Your task to perform on an android device: toggle data saver in the chrome app Image 0: 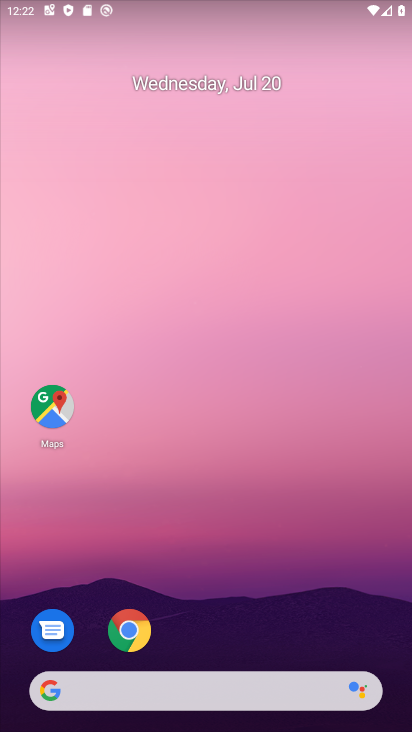
Step 0: press home button
Your task to perform on an android device: toggle data saver in the chrome app Image 1: 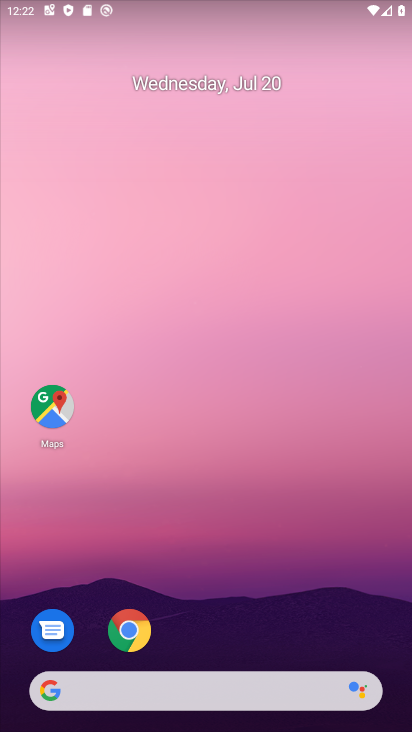
Step 1: click (132, 639)
Your task to perform on an android device: toggle data saver in the chrome app Image 2: 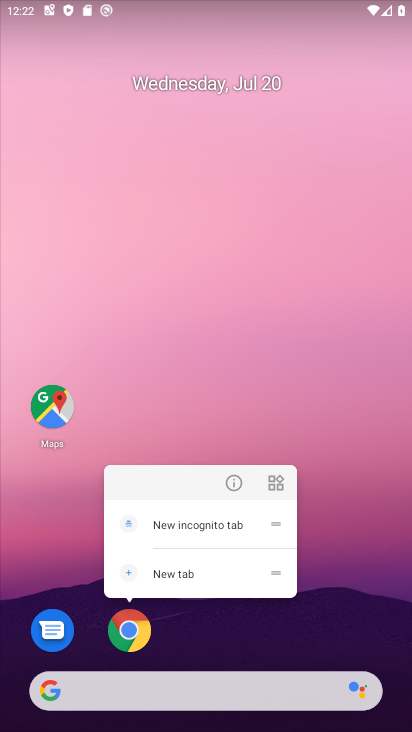
Step 2: click (135, 642)
Your task to perform on an android device: toggle data saver in the chrome app Image 3: 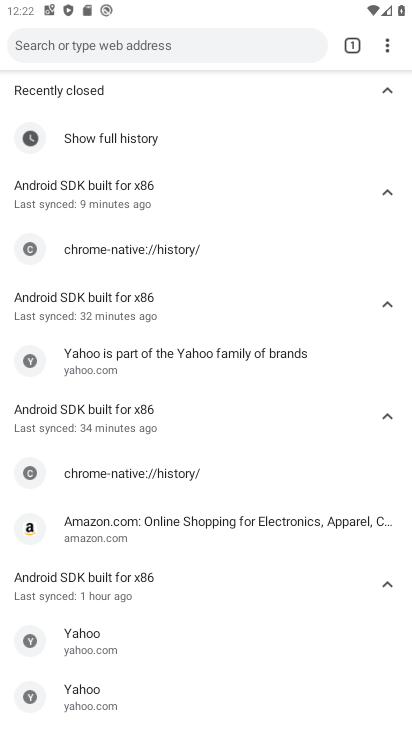
Step 3: drag from (385, 43) to (230, 382)
Your task to perform on an android device: toggle data saver in the chrome app Image 4: 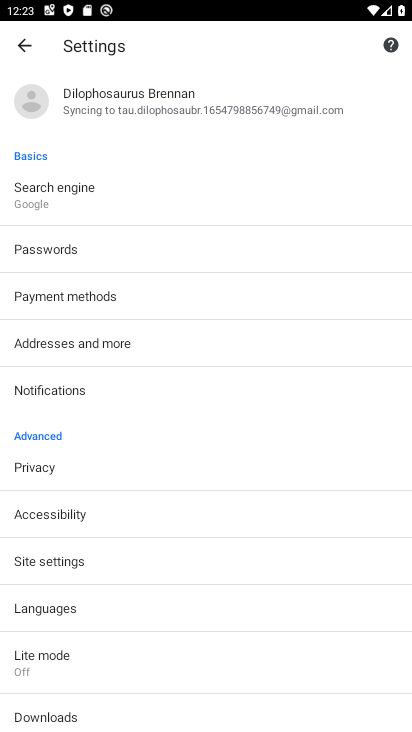
Step 4: click (43, 655)
Your task to perform on an android device: toggle data saver in the chrome app Image 5: 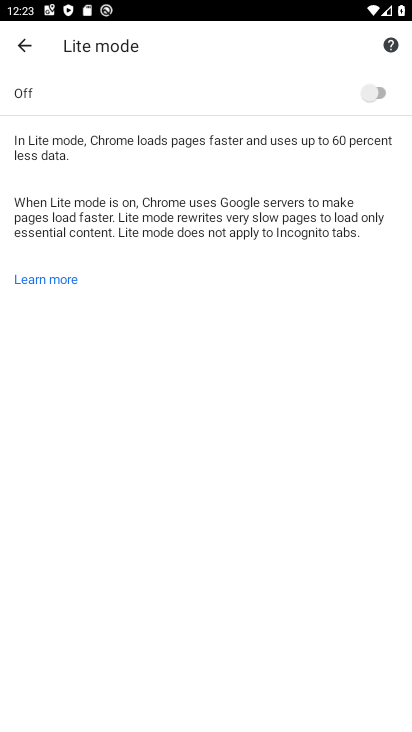
Step 5: click (376, 92)
Your task to perform on an android device: toggle data saver in the chrome app Image 6: 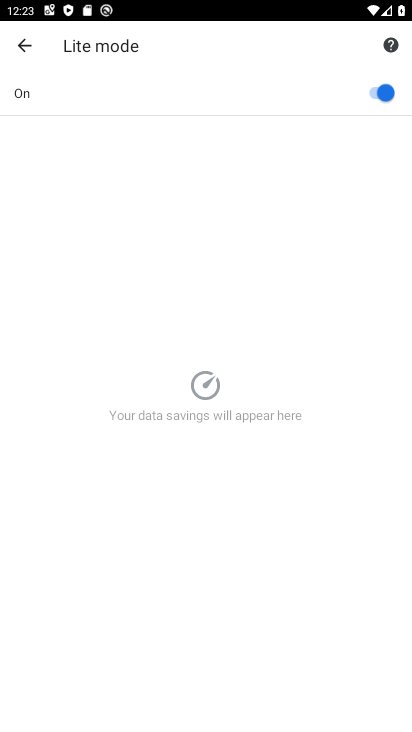
Step 6: task complete